Your task to perform on an android device: Turn off the flashlight Image 0: 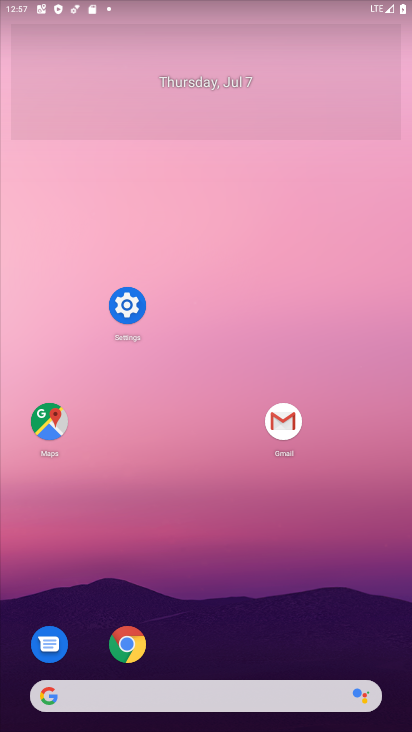
Step 0: drag from (393, 710) to (330, 97)
Your task to perform on an android device: Turn off the flashlight Image 1: 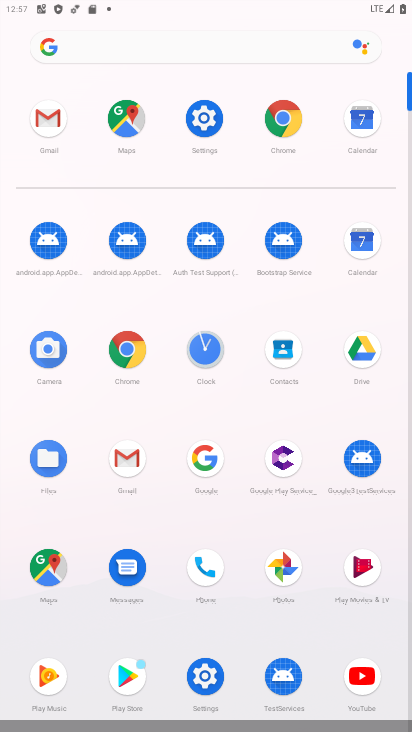
Step 1: drag from (203, 119) to (228, 41)
Your task to perform on an android device: Turn off the flashlight Image 2: 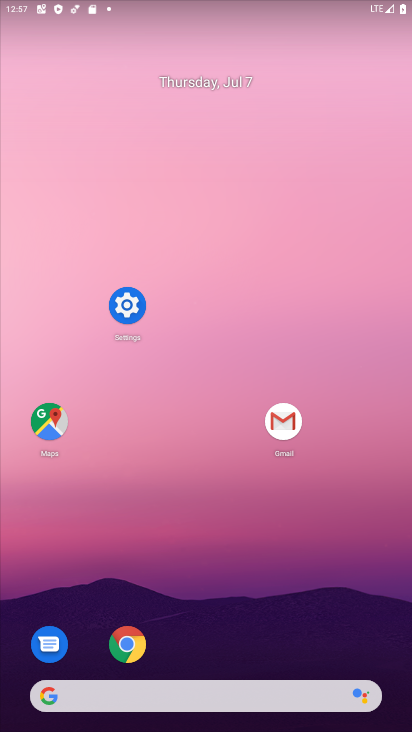
Step 2: click (112, 303)
Your task to perform on an android device: Turn off the flashlight Image 3: 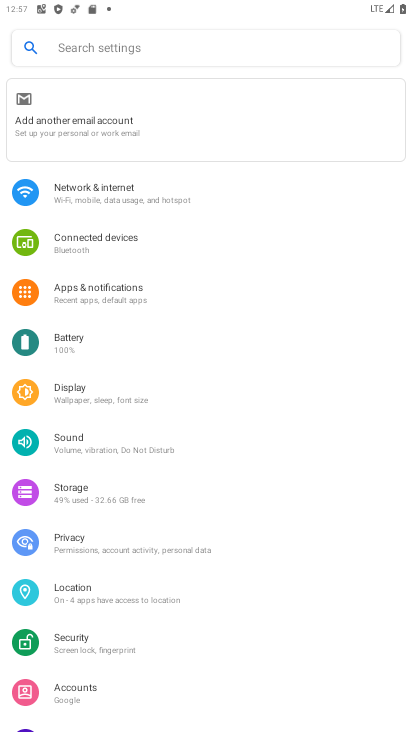
Step 3: click (63, 387)
Your task to perform on an android device: Turn off the flashlight Image 4: 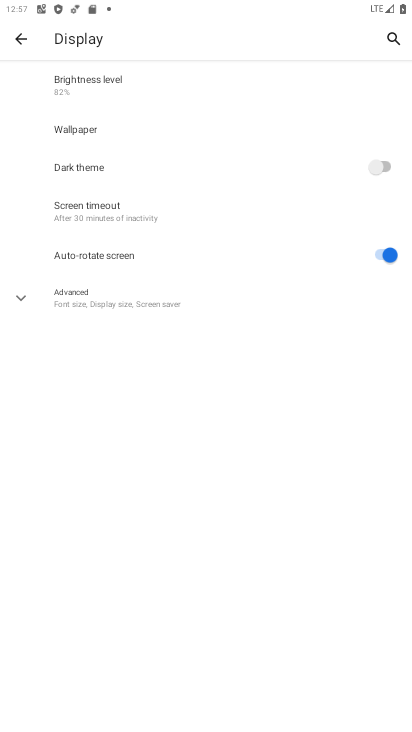
Step 4: task complete